Your task to perform on an android device: Search for usb-a on ebay, select the first entry, and add it to the cart. Image 0: 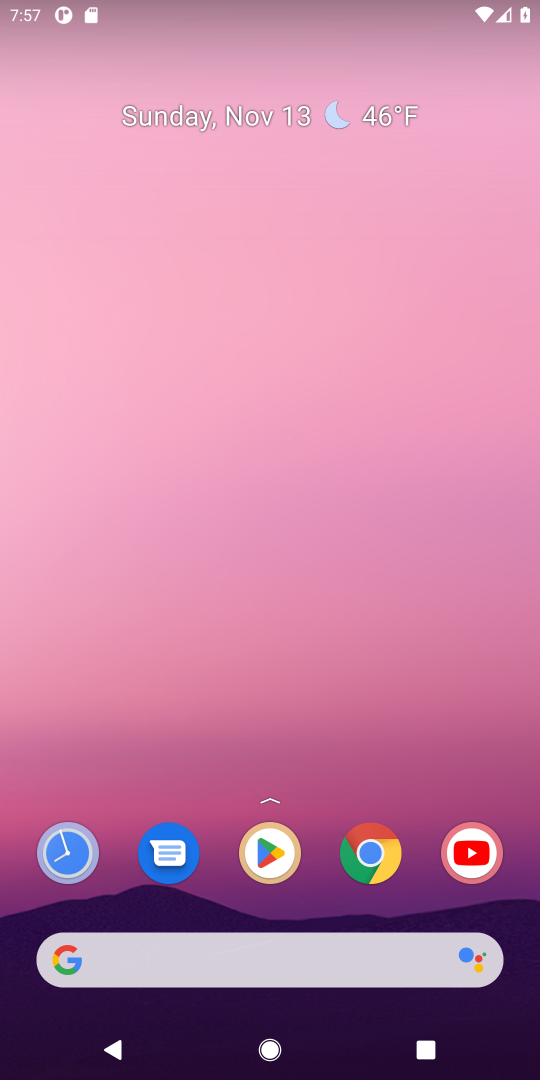
Step 0: press home button
Your task to perform on an android device: Search for usb-a on ebay, select the first entry, and add it to the cart. Image 1: 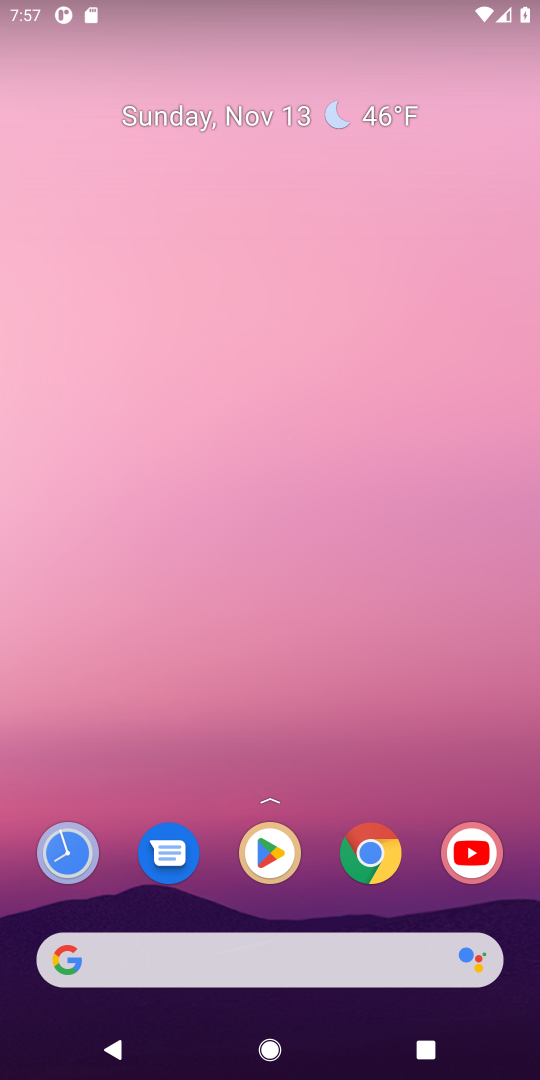
Step 1: click (99, 953)
Your task to perform on an android device: Search for usb-a on ebay, select the first entry, and add it to the cart. Image 2: 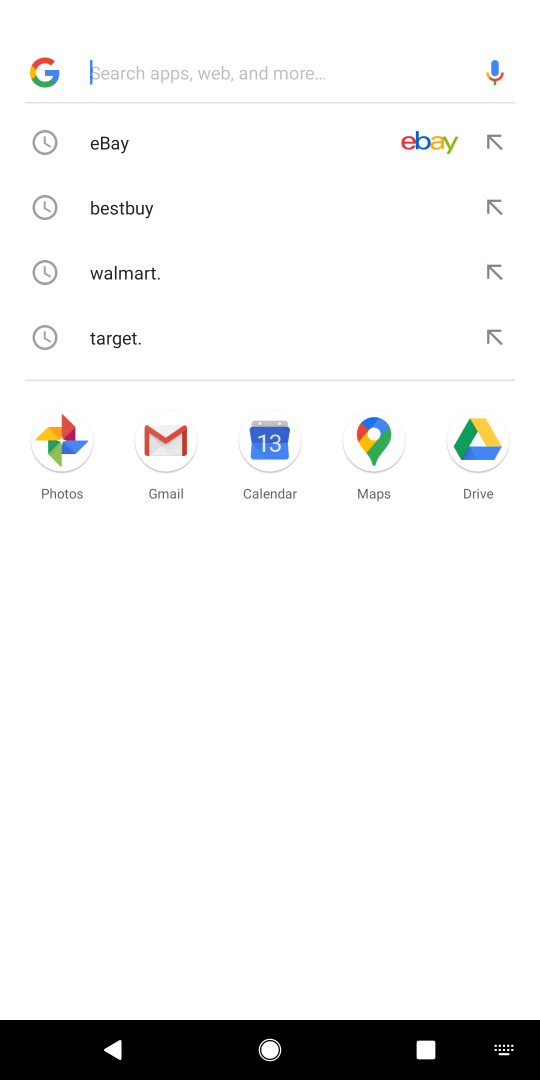
Step 2: click (206, 138)
Your task to perform on an android device: Search for usb-a on ebay, select the first entry, and add it to the cart. Image 3: 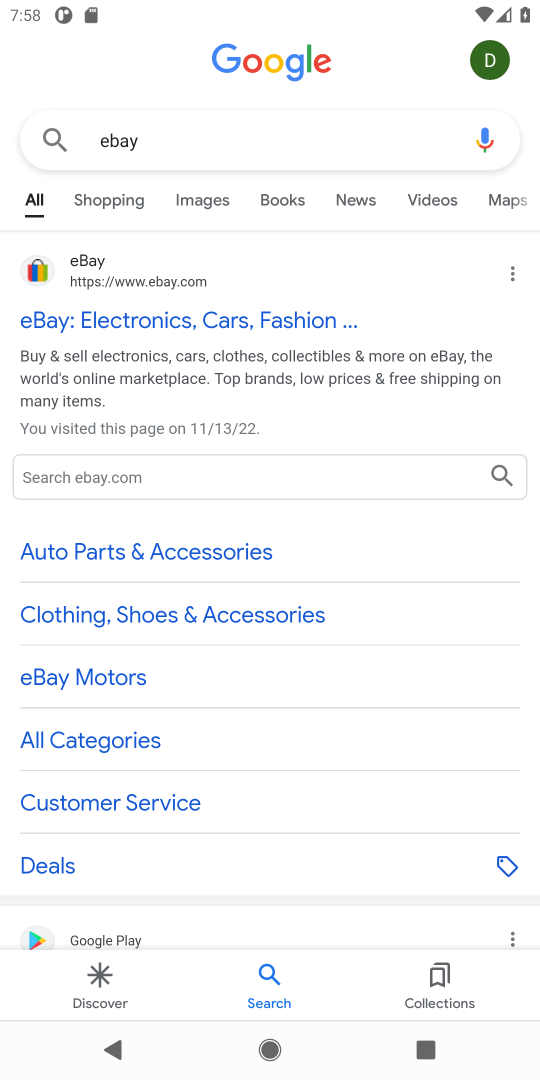
Step 3: click (80, 317)
Your task to perform on an android device: Search for usb-a on ebay, select the first entry, and add it to the cart. Image 4: 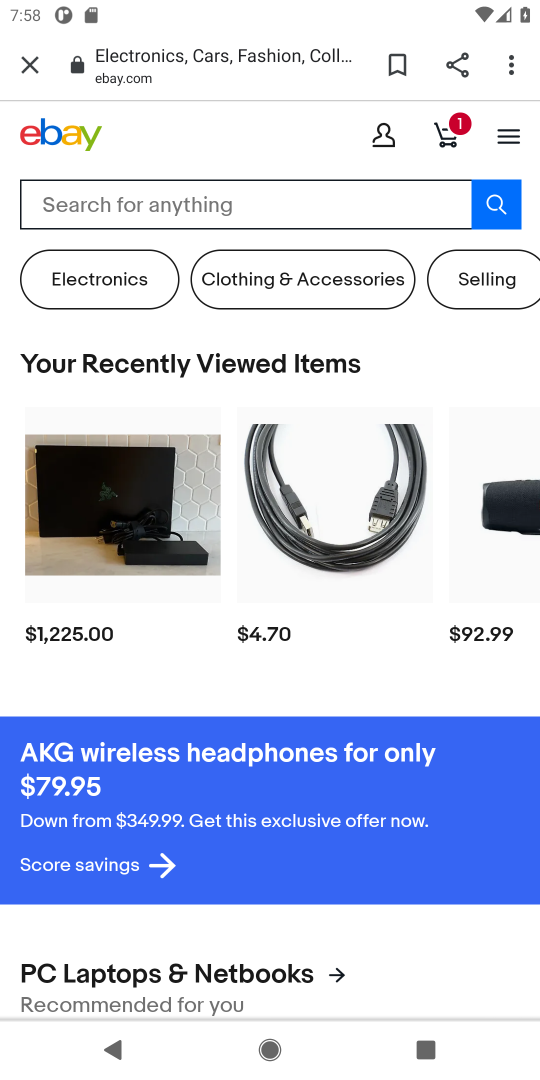
Step 4: click (96, 207)
Your task to perform on an android device: Search for usb-a on ebay, select the first entry, and add it to the cart. Image 5: 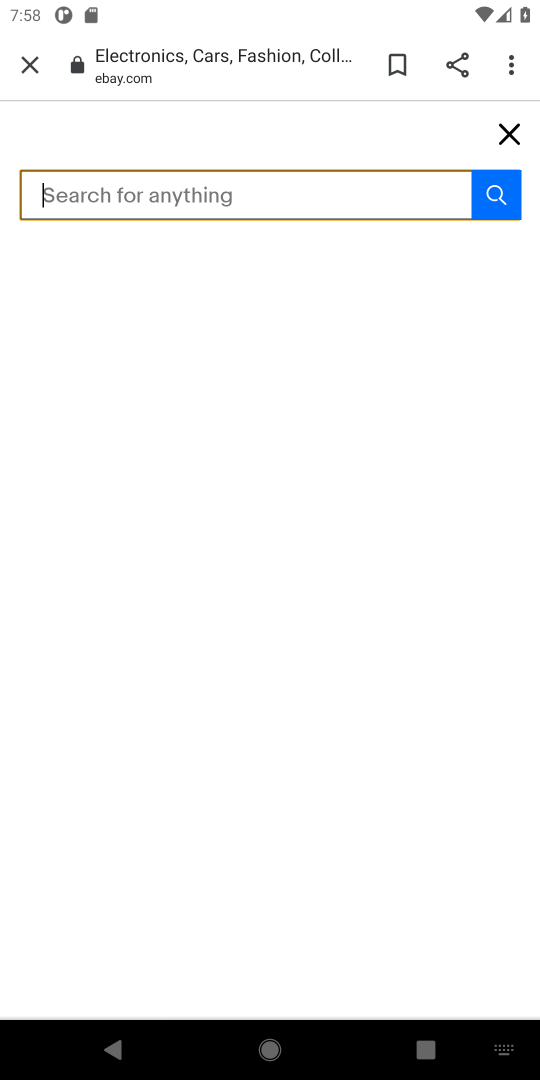
Step 5: type "usb-a"
Your task to perform on an android device: Search for usb-a on ebay, select the first entry, and add it to the cart. Image 6: 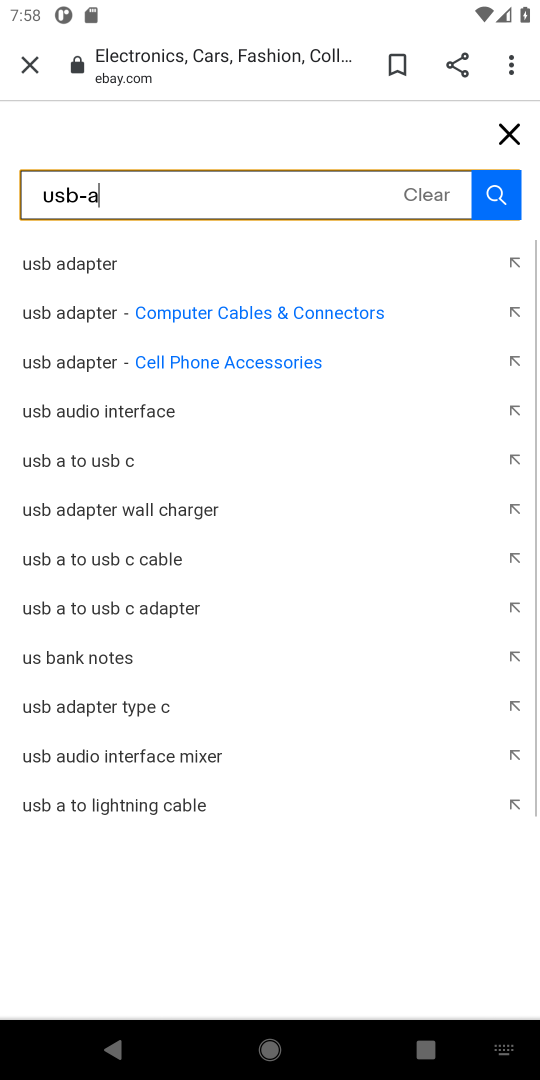
Step 6: press enter
Your task to perform on an android device: Search for usb-a on ebay, select the first entry, and add it to the cart. Image 7: 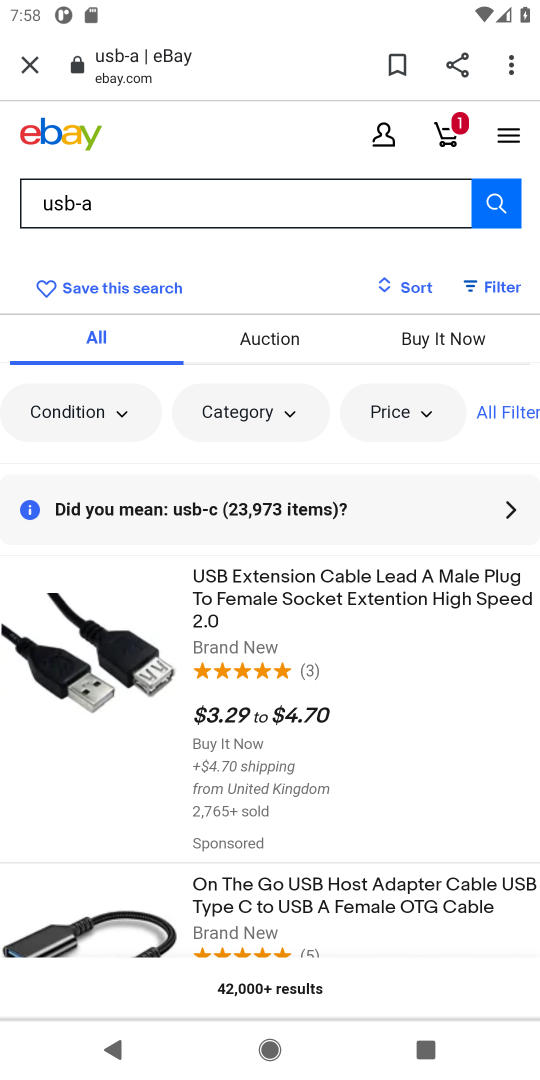
Step 7: drag from (369, 804) to (369, 503)
Your task to perform on an android device: Search for usb-a on ebay, select the first entry, and add it to the cart. Image 8: 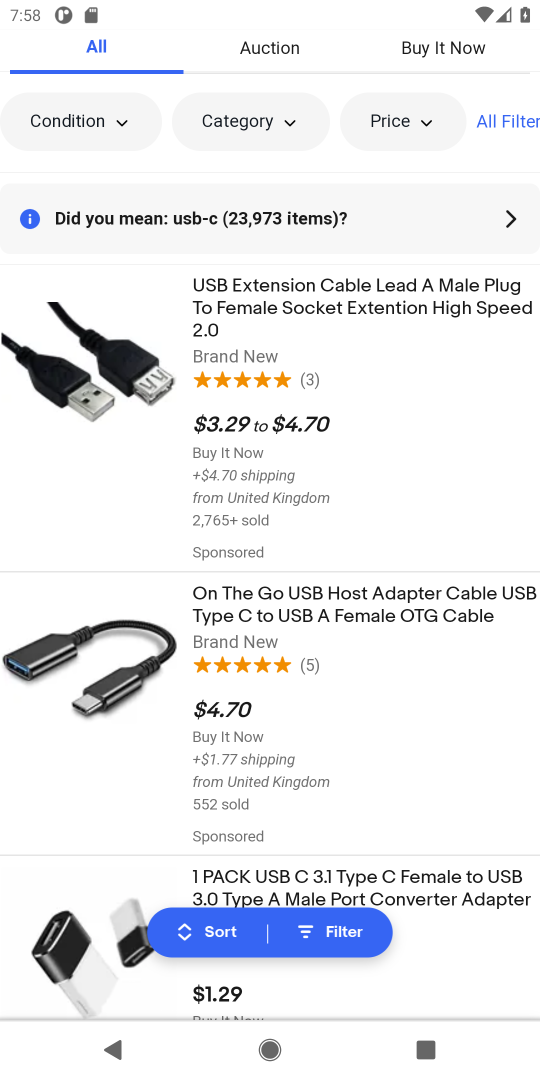
Step 8: click (257, 299)
Your task to perform on an android device: Search for usb-a on ebay, select the first entry, and add it to the cart. Image 9: 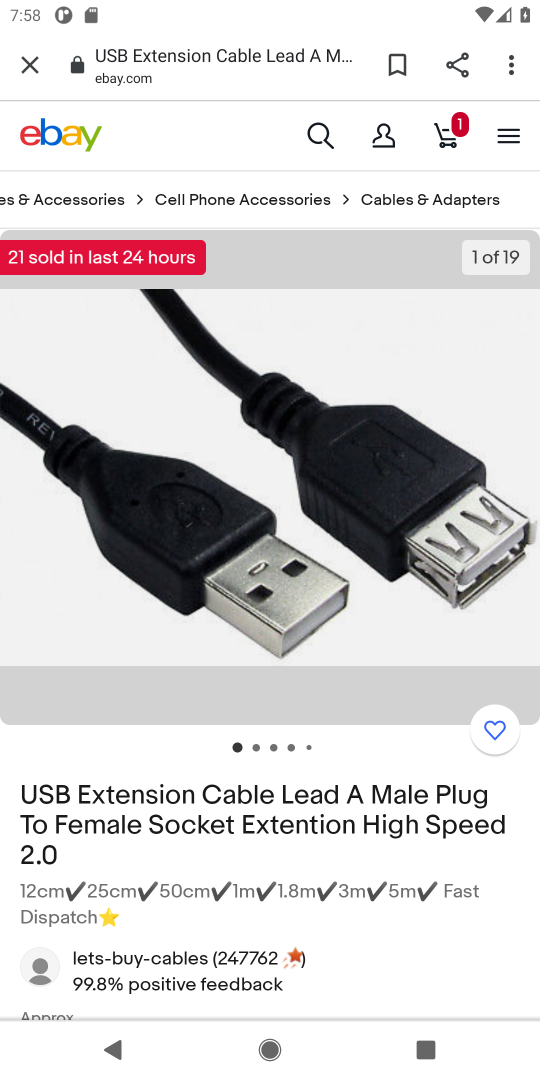
Step 9: drag from (284, 841) to (278, 361)
Your task to perform on an android device: Search for usb-a on ebay, select the first entry, and add it to the cart. Image 10: 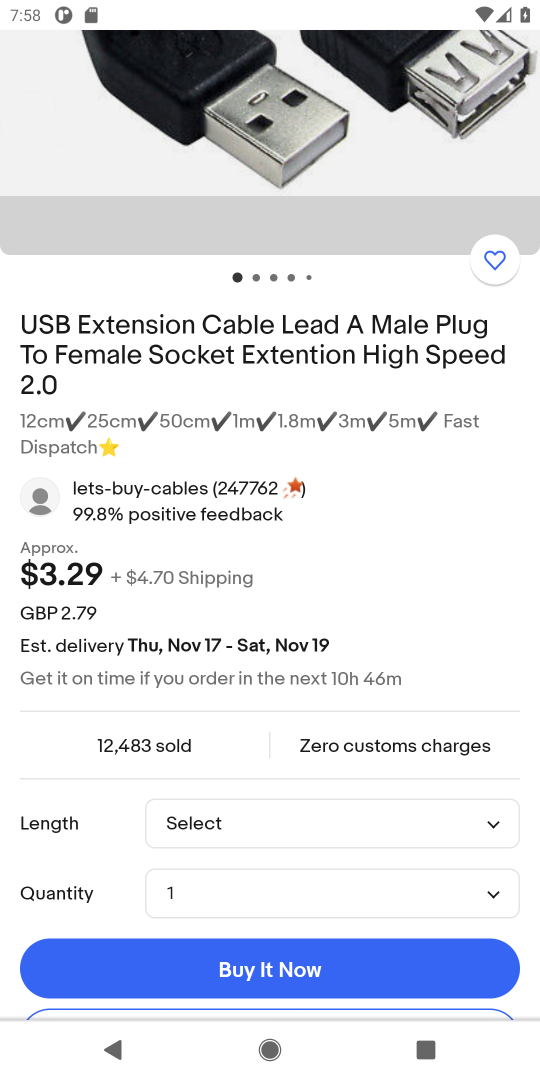
Step 10: drag from (291, 822) to (301, 304)
Your task to perform on an android device: Search for usb-a on ebay, select the first entry, and add it to the cart. Image 11: 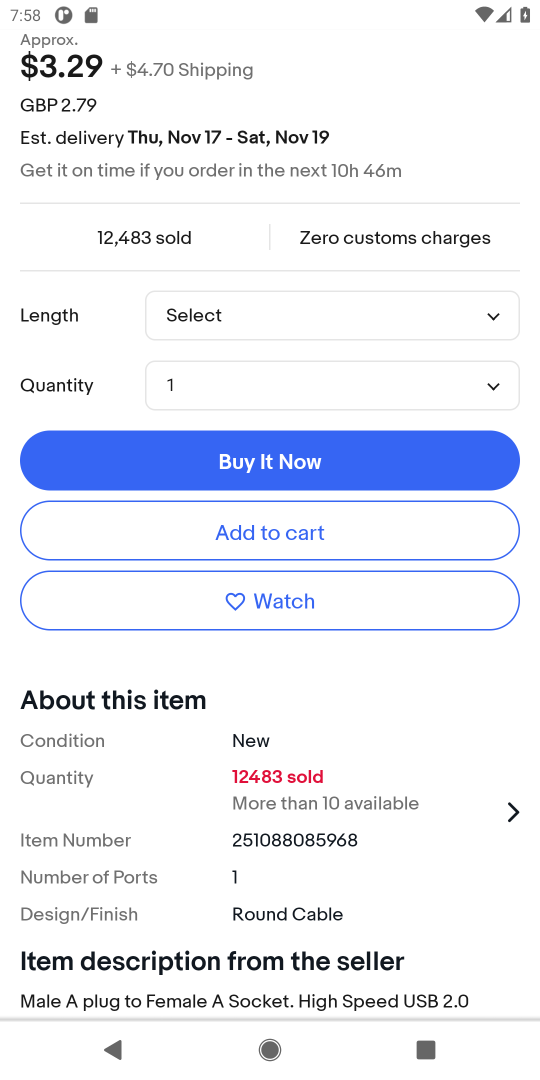
Step 11: click (251, 532)
Your task to perform on an android device: Search for usb-a on ebay, select the first entry, and add it to the cart. Image 12: 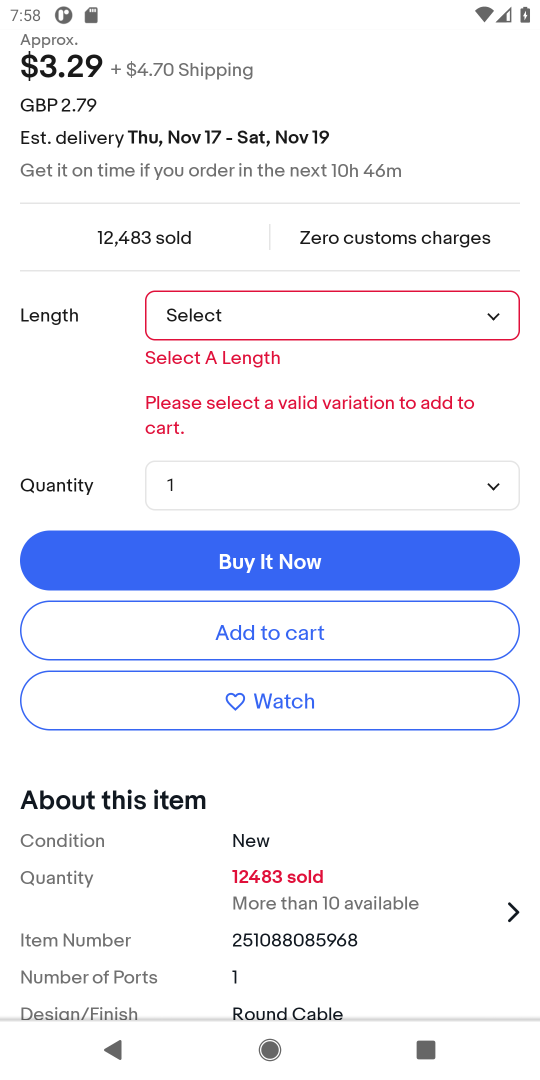
Step 12: click (500, 320)
Your task to perform on an android device: Search for usb-a on ebay, select the first entry, and add it to the cart. Image 13: 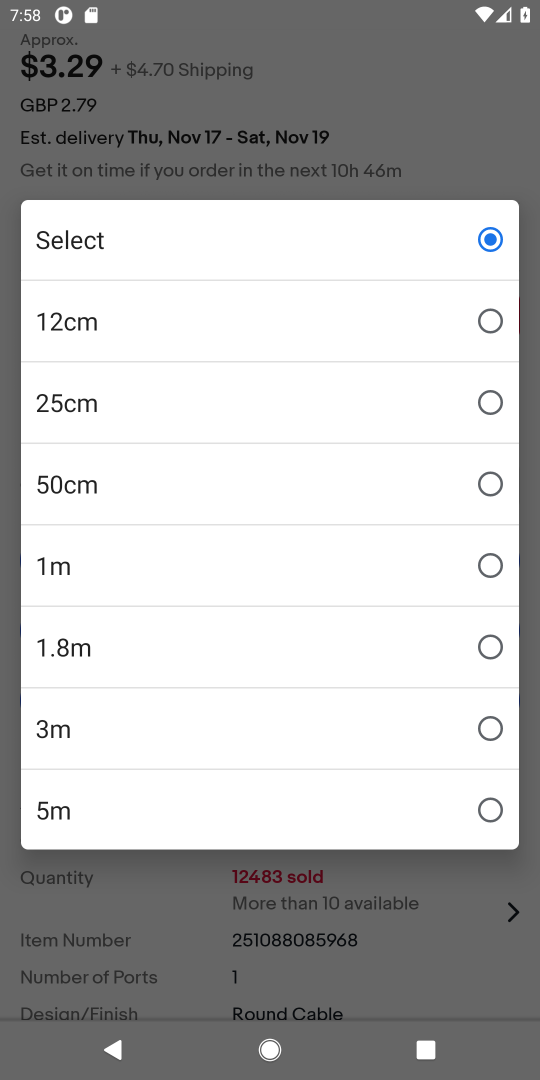
Step 13: click (495, 320)
Your task to perform on an android device: Search for usb-a on ebay, select the first entry, and add it to the cart. Image 14: 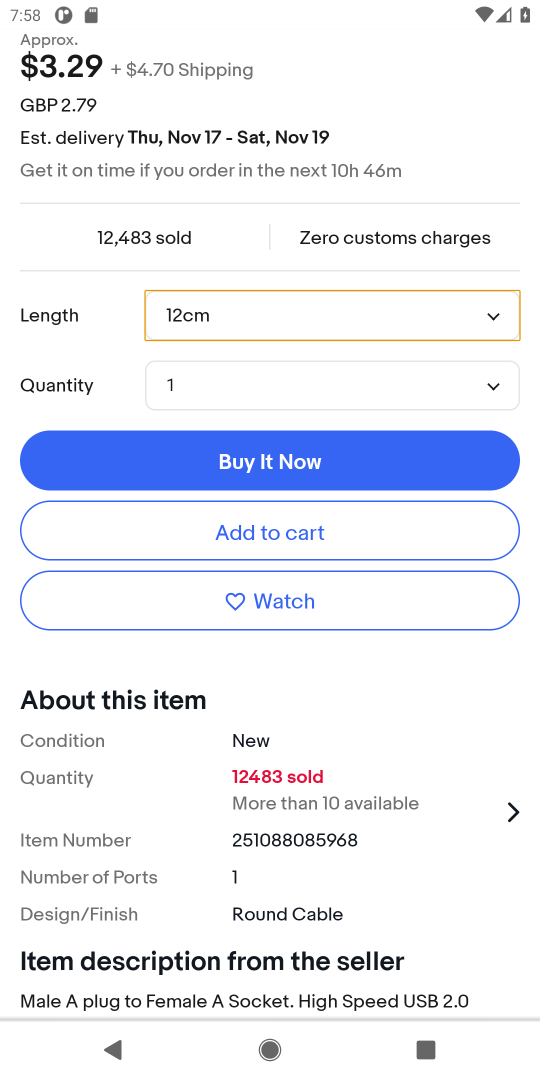
Step 14: click (256, 531)
Your task to perform on an android device: Search for usb-a on ebay, select the first entry, and add it to the cart. Image 15: 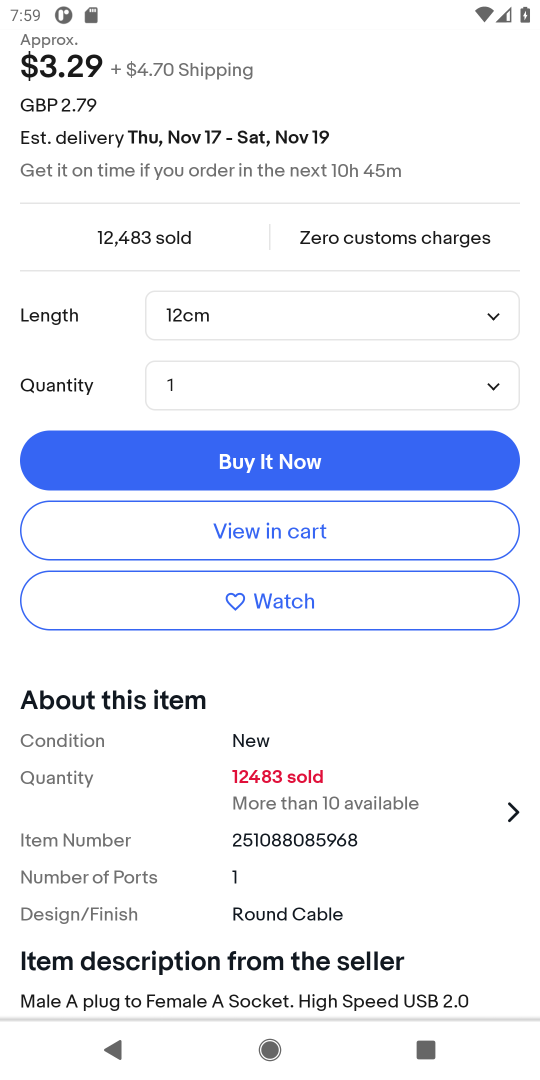
Step 15: task complete